Your task to perform on an android device: Open ESPN.com Image 0: 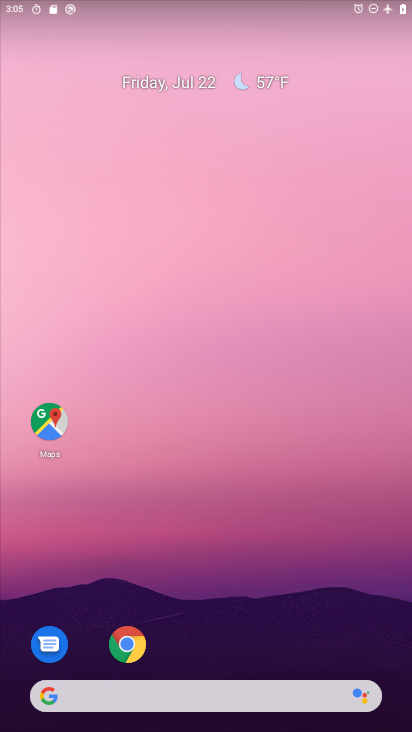
Step 0: click (133, 649)
Your task to perform on an android device: Open ESPN.com Image 1: 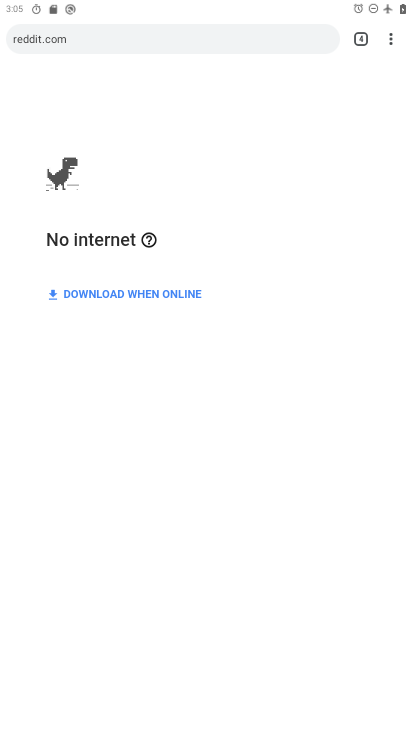
Step 1: click (357, 38)
Your task to perform on an android device: Open ESPN.com Image 2: 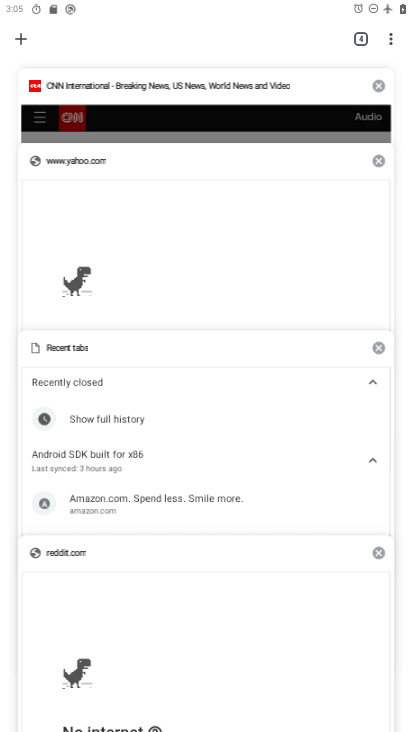
Step 2: click (35, 34)
Your task to perform on an android device: Open ESPN.com Image 3: 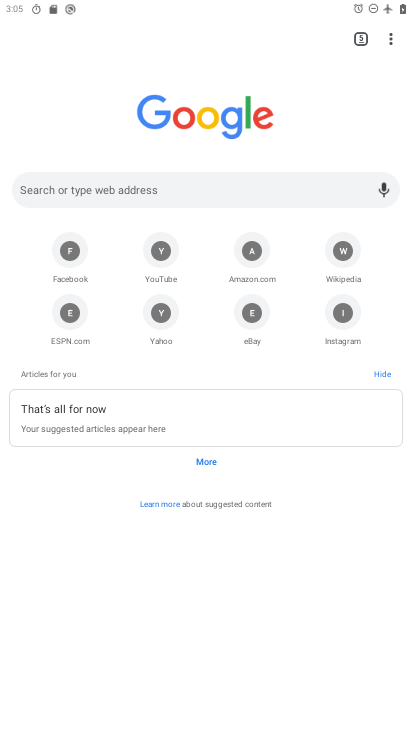
Step 3: click (128, 190)
Your task to perform on an android device: Open ESPN.com Image 4: 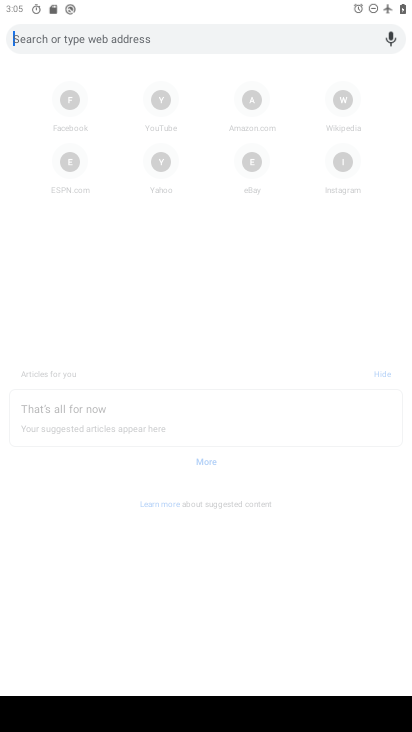
Step 4: type "ESPN.com"
Your task to perform on an android device: Open ESPN.com Image 5: 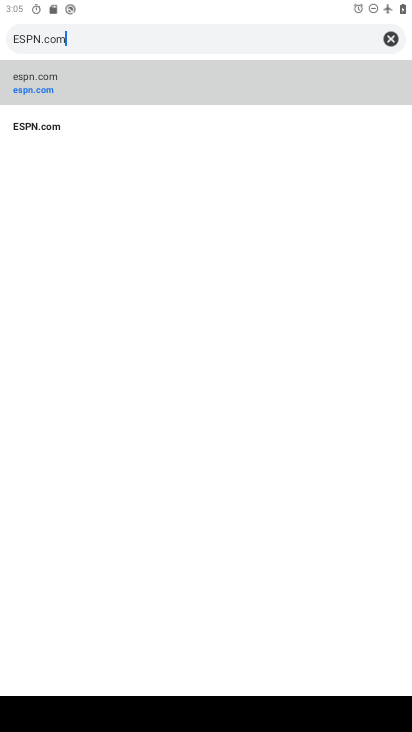
Step 5: type ""
Your task to perform on an android device: Open ESPN.com Image 6: 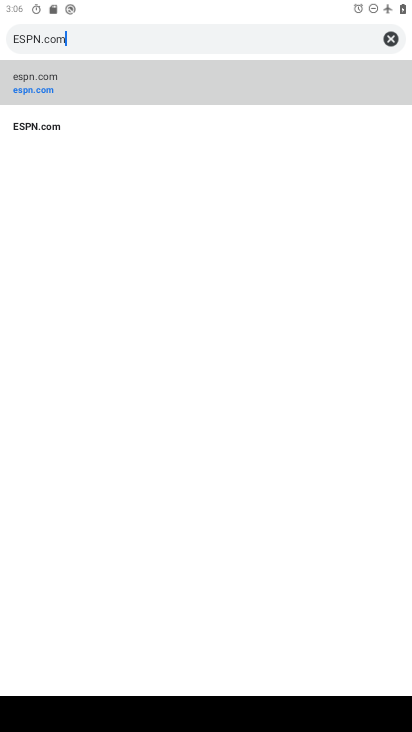
Step 6: click (116, 87)
Your task to perform on an android device: Open ESPN.com Image 7: 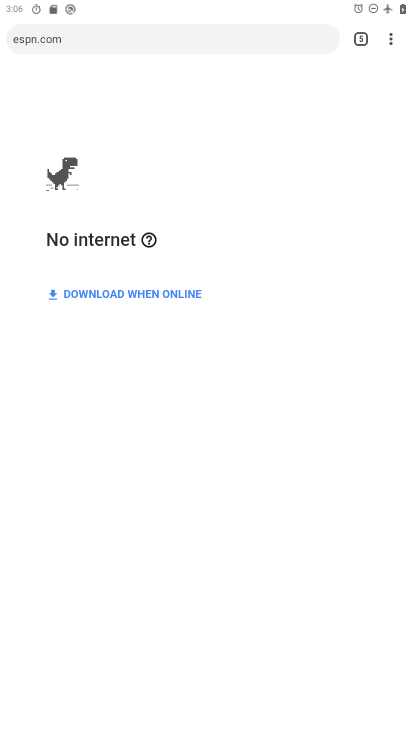
Step 7: task complete